Your task to perform on an android device: stop showing notifications on the lock screen Image 0: 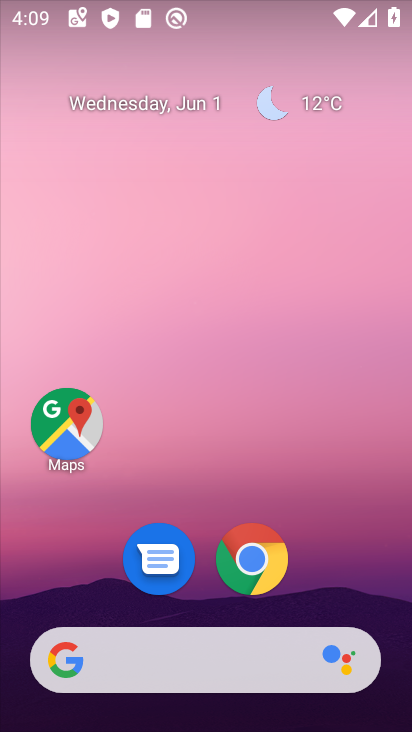
Step 0: drag from (300, 597) to (303, 23)
Your task to perform on an android device: stop showing notifications on the lock screen Image 1: 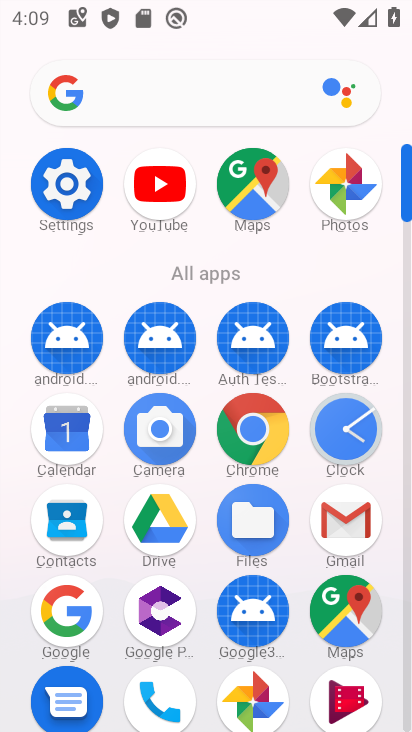
Step 1: click (62, 184)
Your task to perform on an android device: stop showing notifications on the lock screen Image 2: 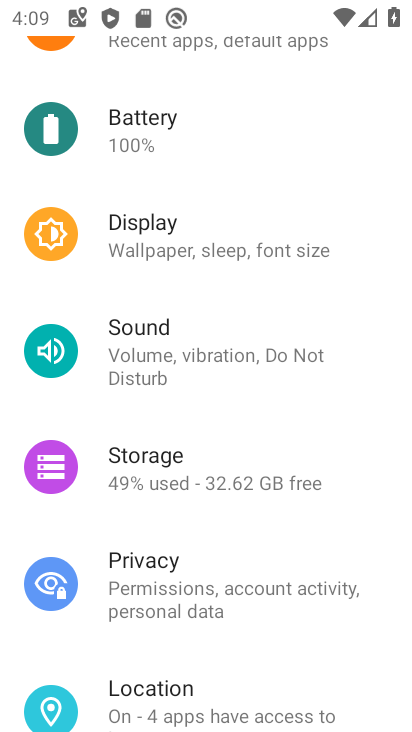
Step 2: drag from (191, 266) to (239, 515)
Your task to perform on an android device: stop showing notifications on the lock screen Image 3: 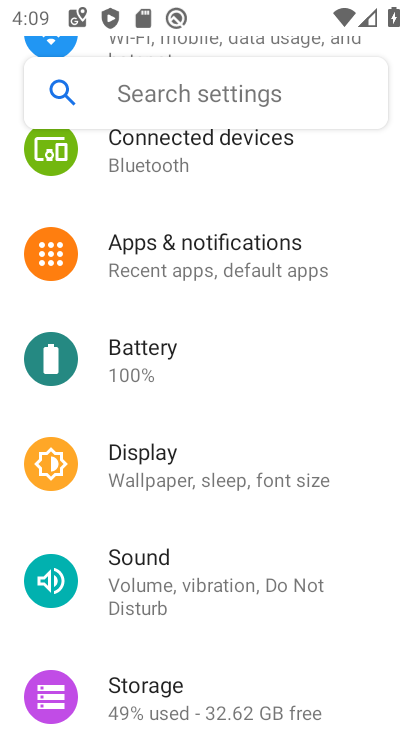
Step 3: click (196, 252)
Your task to perform on an android device: stop showing notifications on the lock screen Image 4: 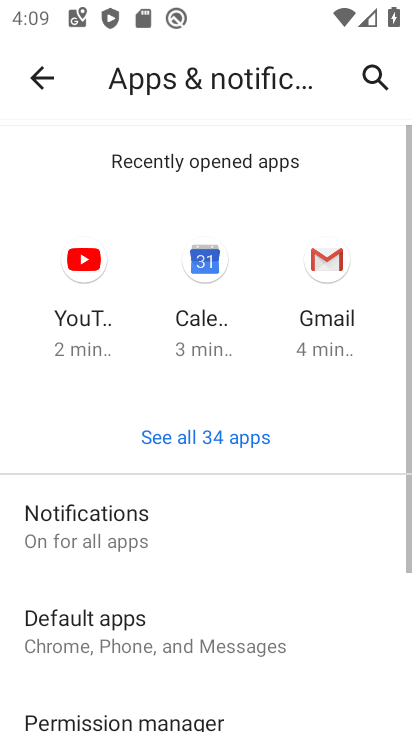
Step 4: click (107, 514)
Your task to perform on an android device: stop showing notifications on the lock screen Image 5: 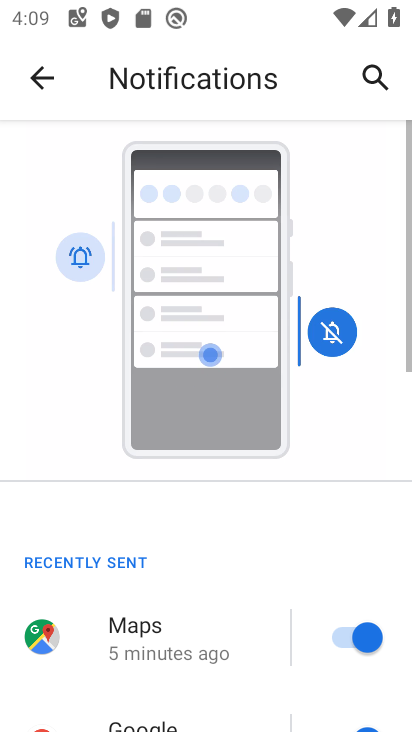
Step 5: drag from (97, 568) to (159, 165)
Your task to perform on an android device: stop showing notifications on the lock screen Image 6: 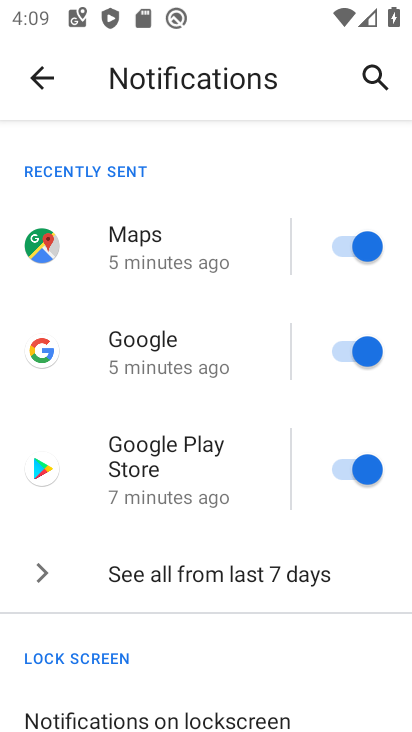
Step 6: drag from (132, 619) to (142, 246)
Your task to perform on an android device: stop showing notifications on the lock screen Image 7: 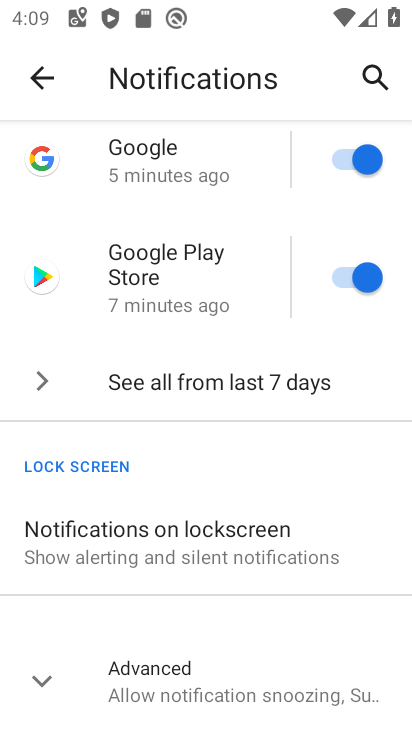
Step 7: click (97, 548)
Your task to perform on an android device: stop showing notifications on the lock screen Image 8: 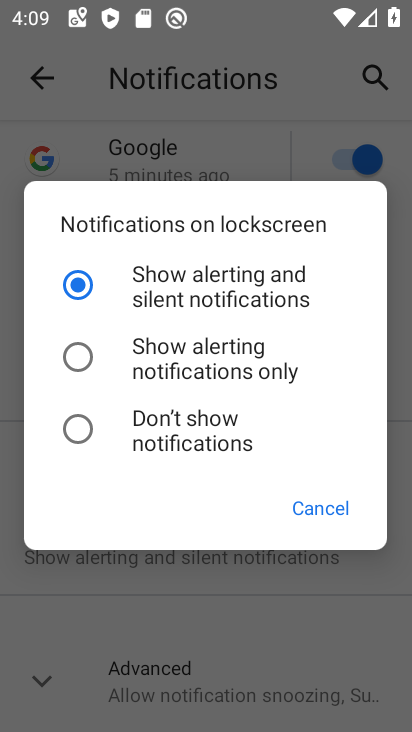
Step 8: click (139, 439)
Your task to perform on an android device: stop showing notifications on the lock screen Image 9: 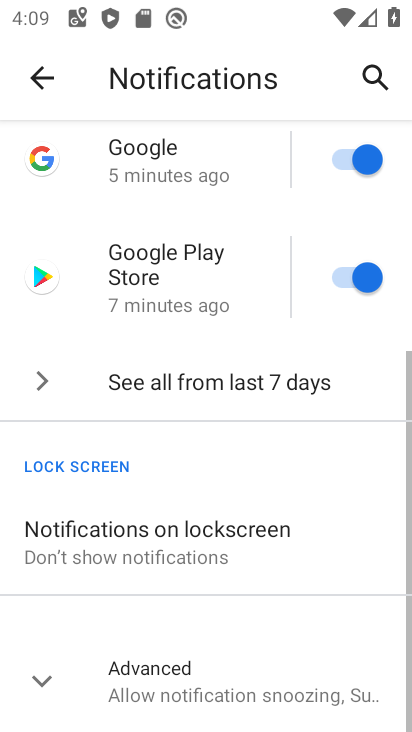
Step 9: task complete